Your task to perform on an android device: clear history in the chrome app Image 0: 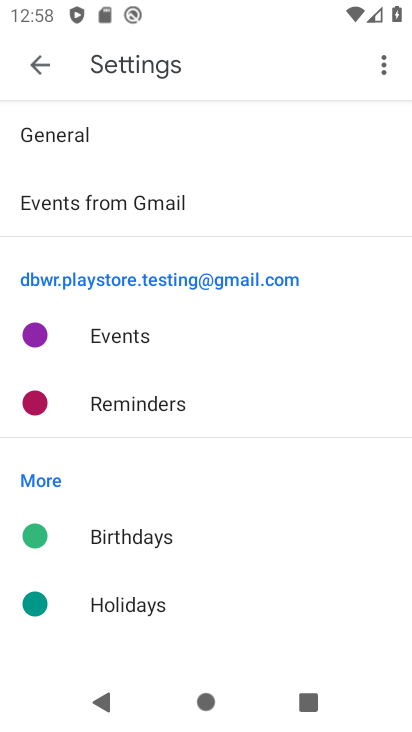
Step 0: press home button
Your task to perform on an android device: clear history in the chrome app Image 1: 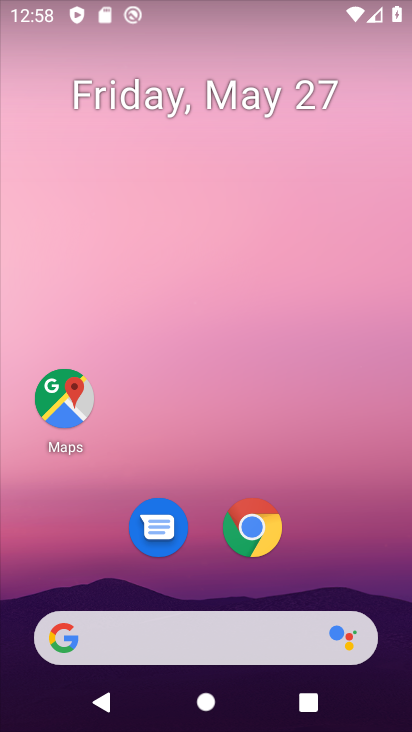
Step 1: click (246, 544)
Your task to perform on an android device: clear history in the chrome app Image 2: 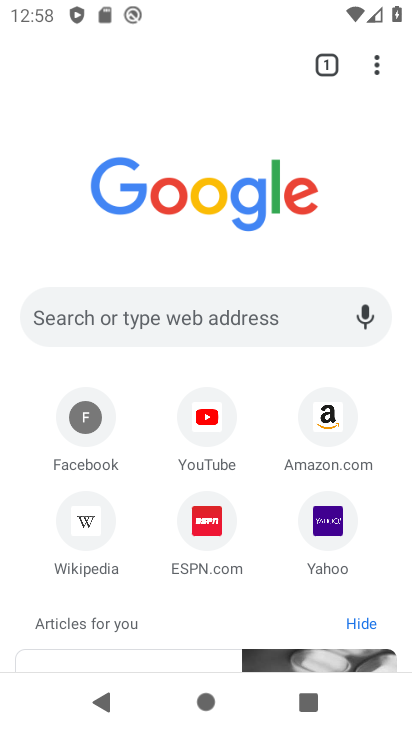
Step 2: click (375, 76)
Your task to perform on an android device: clear history in the chrome app Image 3: 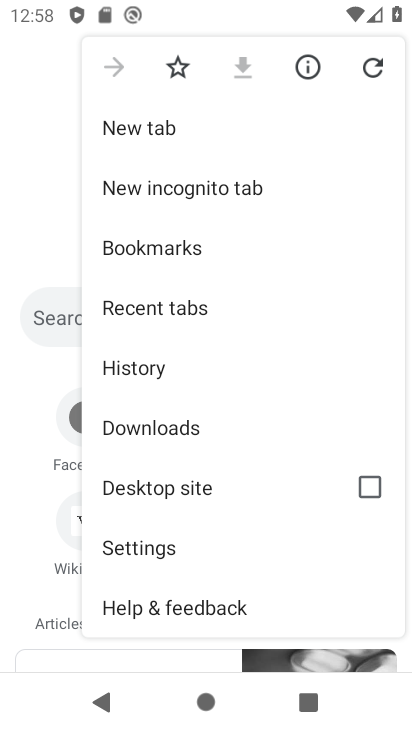
Step 3: click (181, 372)
Your task to perform on an android device: clear history in the chrome app Image 4: 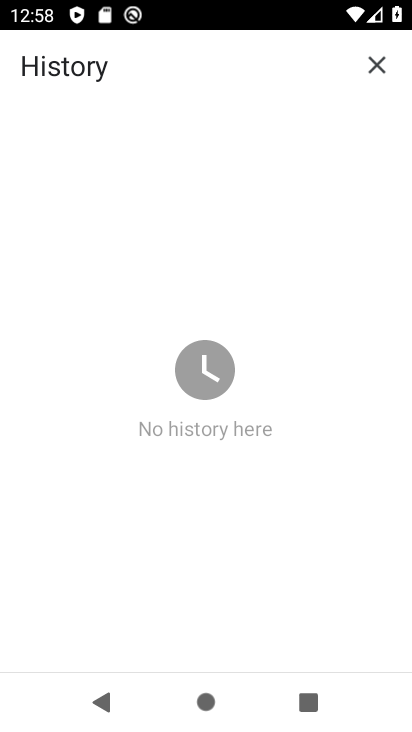
Step 4: task complete